Your task to perform on an android device: change notifications settings Image 0: 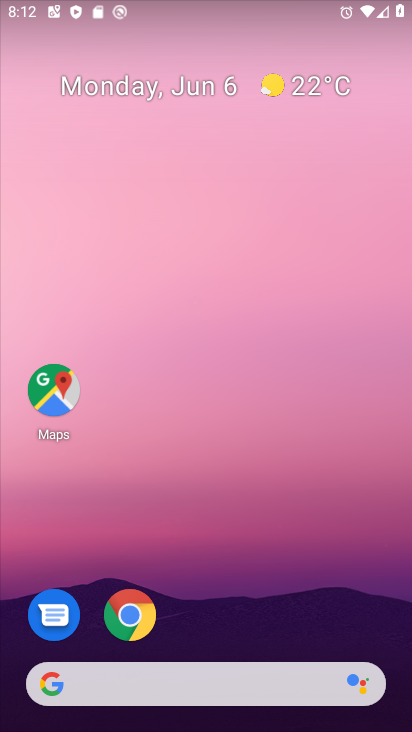
Step 0: drag from (386, 680) to (358, 202)
Your task to perform on an android device: change notifications settings Image 1: 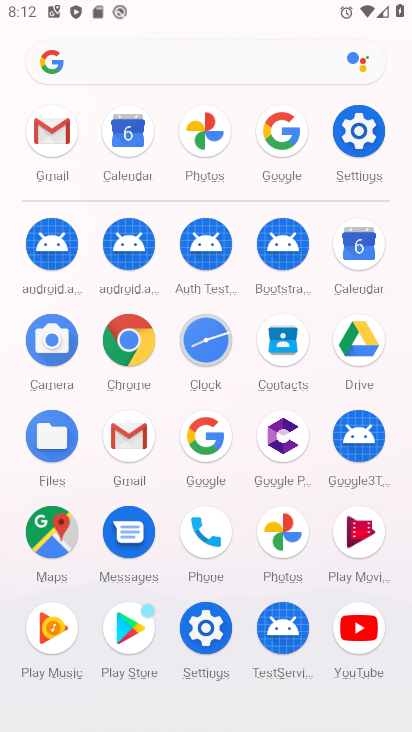
Step 1: click (358, 112)
Your task to perform on an android device: change notifications settings Image 2: 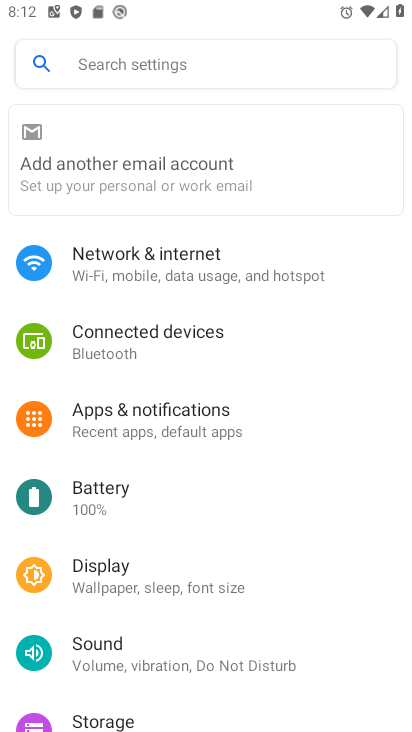
Step 2: click (202, 306)
Your task to perform on an android device: change notifications settings Image 3: 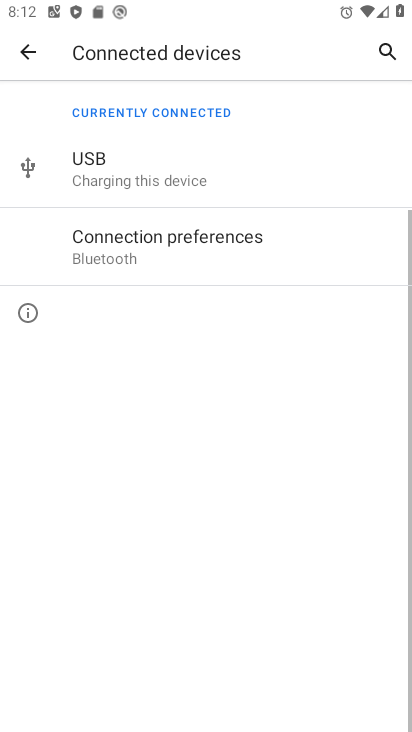
Step 3: click (27, 41)
Your task to perform on an android device: change notifications settings Image 4: 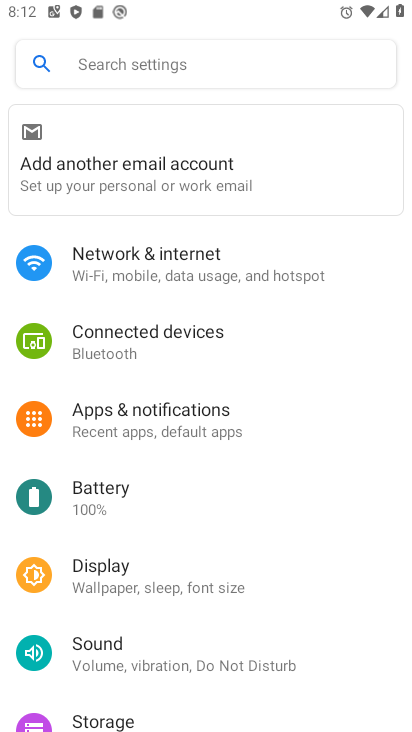
Step 4: click (156, 404)
Your task to perform on an android device: change notifications settings Image 5: 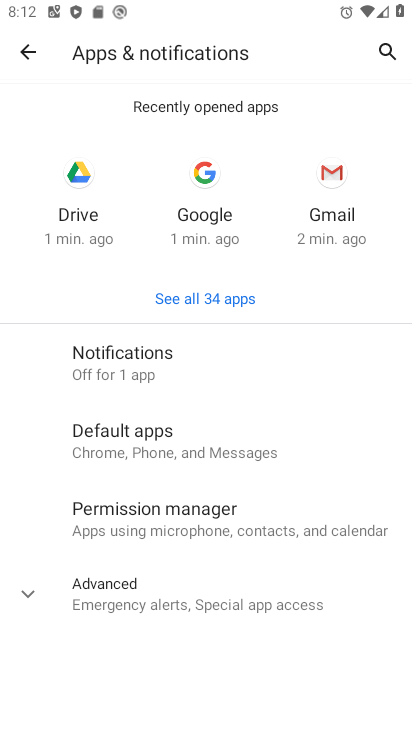
Step 5: click (105, 362)
Your task to perform on an android device: change notifications settings Image 6: 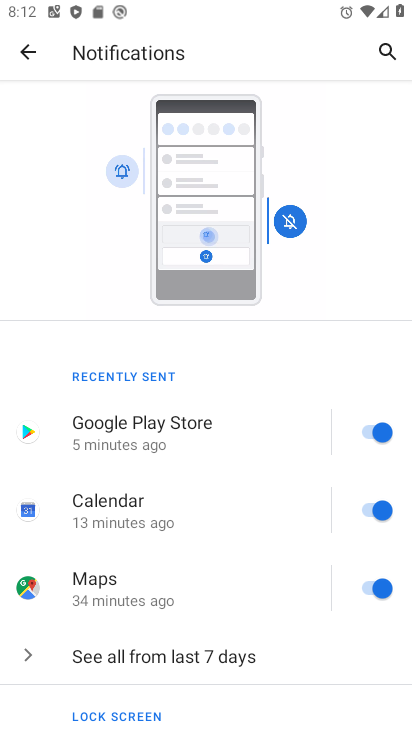
Step 6: drag from (280, 690) to (278, 258)
Your task to perform on an android device: change notifications settings Image 7: 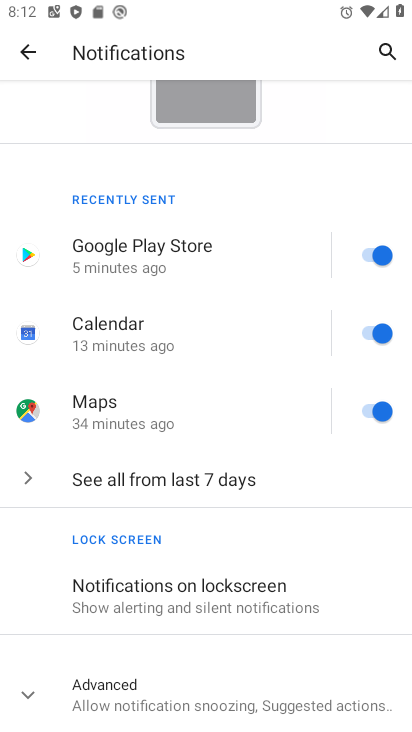
Step 7: click (203, 598)
Your task to perform on an android device: change notifications settings Image 8: 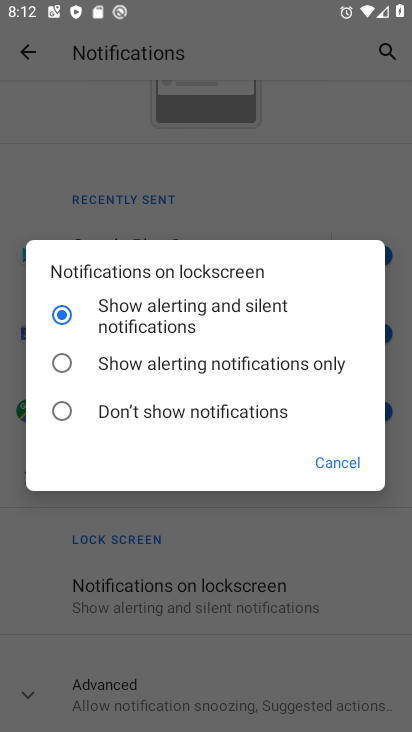
Step 8: click (325, 452)
Your task to perform on an android device: change notifications settings Image 9: 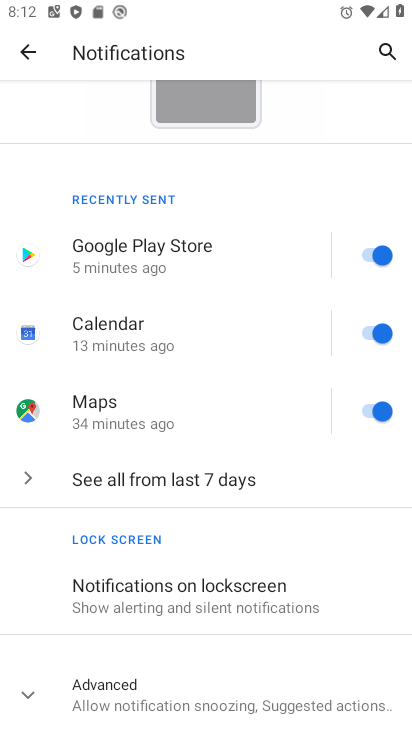
Step 9: click (23, 688)
Your task to perform on an android device: change notifications settings Image 10: 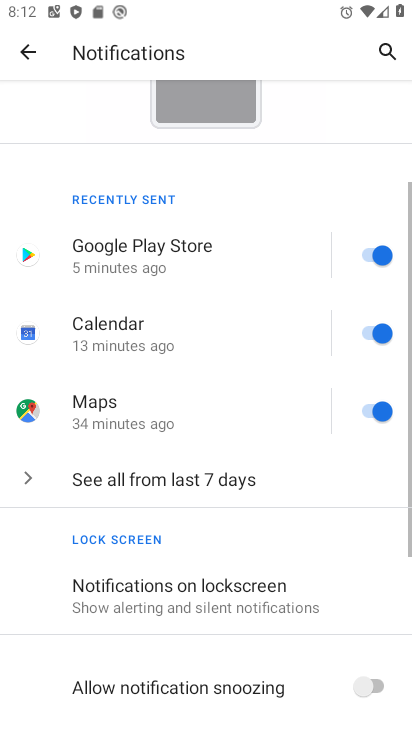
Step 10: task complete